Your task to perform on an android device: turn off translation in the chrome app Image 0: 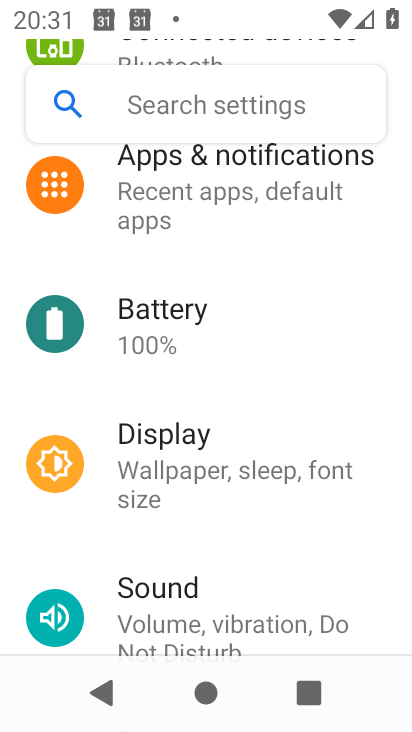
Step 0: press home button
Your task to perform on an android device: turn off translation in the chrome app Image 1: 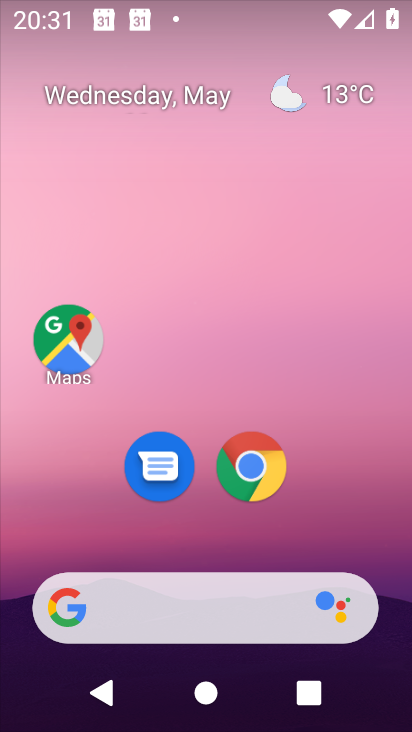
Step 1: click (253, 462)
Your task to perform on an android device: turn off translation in the chrome app Image 2: 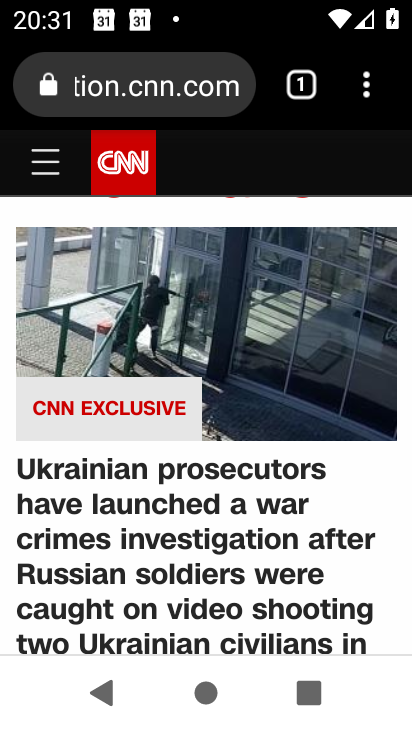
Step 2: click (371, 91)
Your task to perform on an android device: turn off translation in the chrome app Image 3: 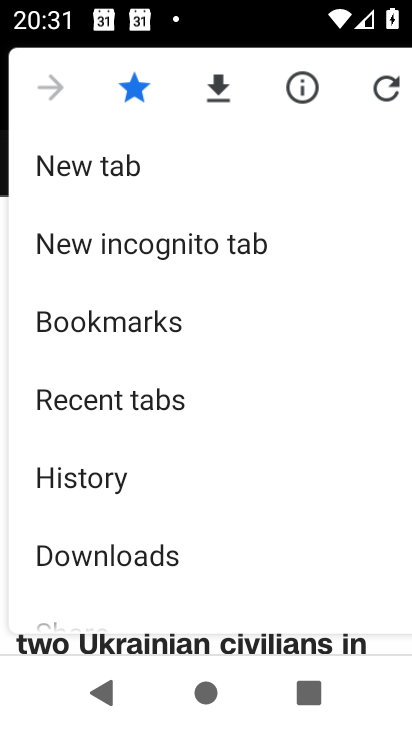
Step 3: drag from (234, 442) to (268, 112)
Your task to perform on an android device: turn off translation in the chrome app Image 4: 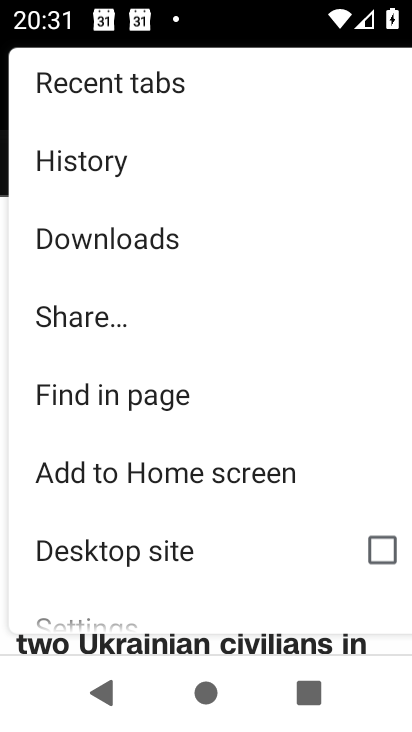
Step 4: drag from (208, 576) to (230, 133)
Your task to perform on an android device: turn off translation in the chrome app Image 5: 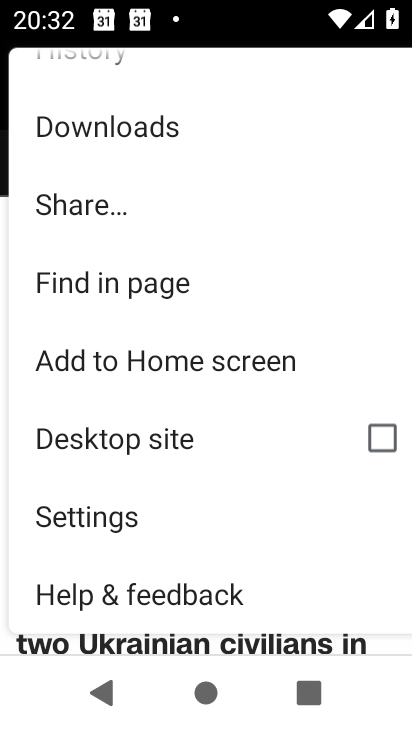
Step 5: click (145, 518)
Your task to perform on an android device: turn off translation in the chrome app Image 6: 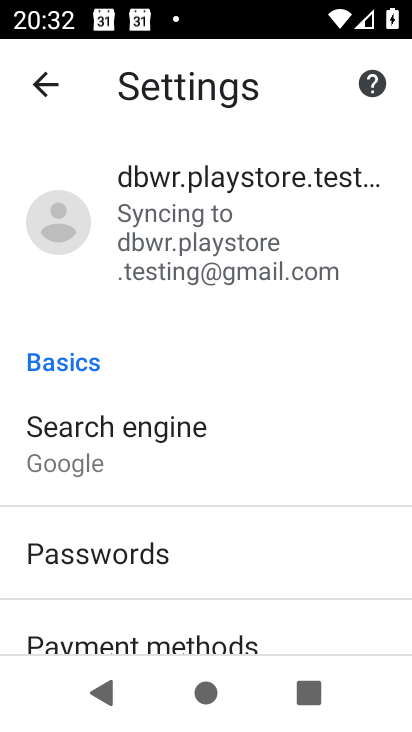
Step 6: drag from (227, 610) to (243, 448)
Your task to perform on an android device: turn off translation in the chrome app Image 7: 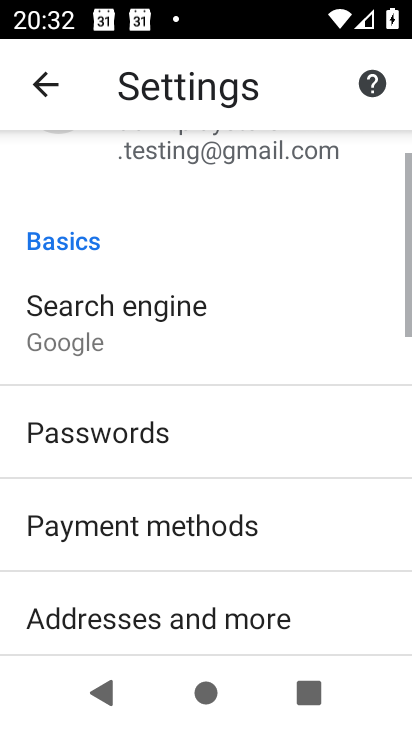
Step 7: drag from (243, 286) to (243, 143)
Your task to perform on an android device: turn off translation in the chrome app Image 8: 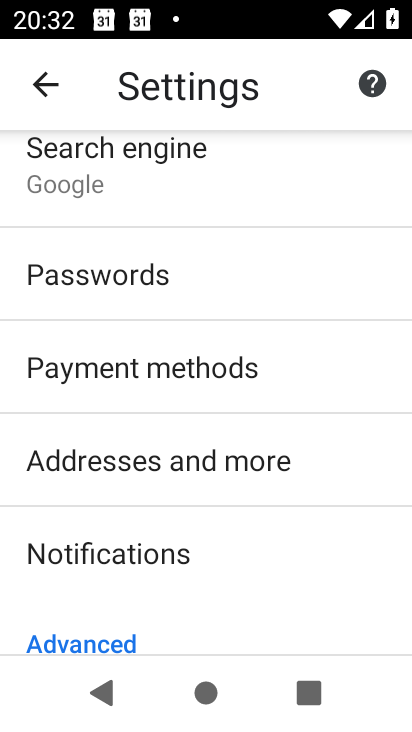
Step 8: drag from (210, 629) to (216, 119)
Your task to perform on an android device: turn off translation in the chrome app Image 9: 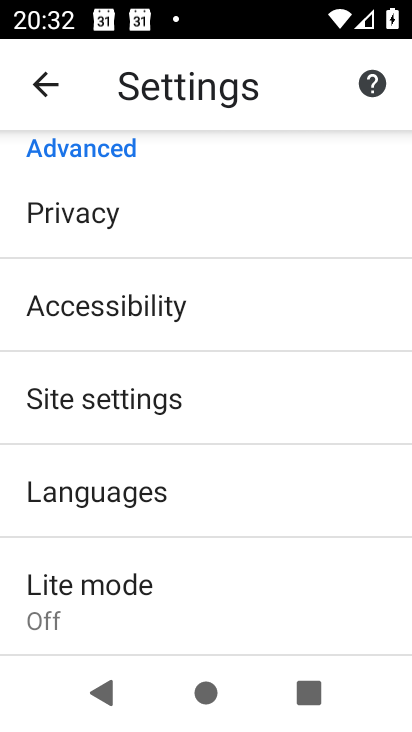
Step 9: click (185, 484)
Your task to perform on an android device: turn off translation in the chrome app Image 10: 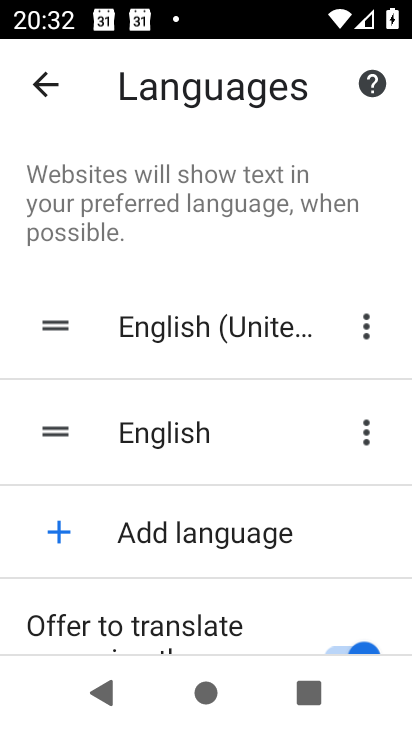
Step 10: drag from (254, 603) to (254, 526)
Your task to perform on an android device: turn off translation in the chrome app Image 11: 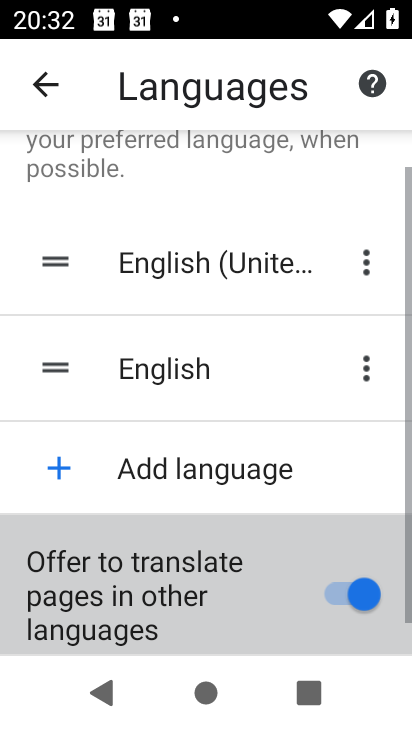
Step 11: click (254, 283)
Your task to perform on an android device: turn off translation in the chrome app Image 12: 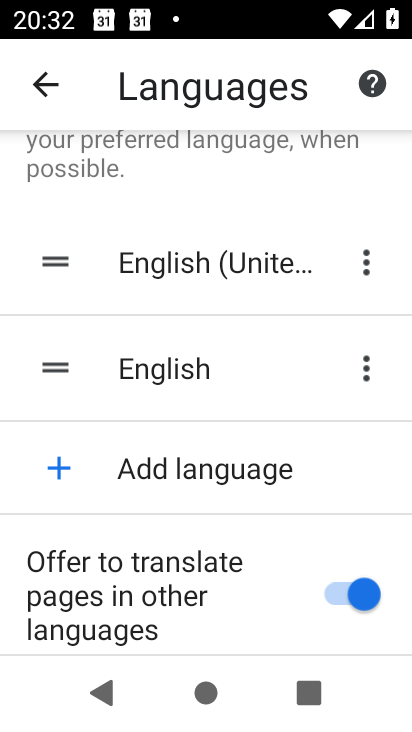
Step 12: click (338, 593)
Your task to perform on an android device: turn off translation in the chrome app Image 13: 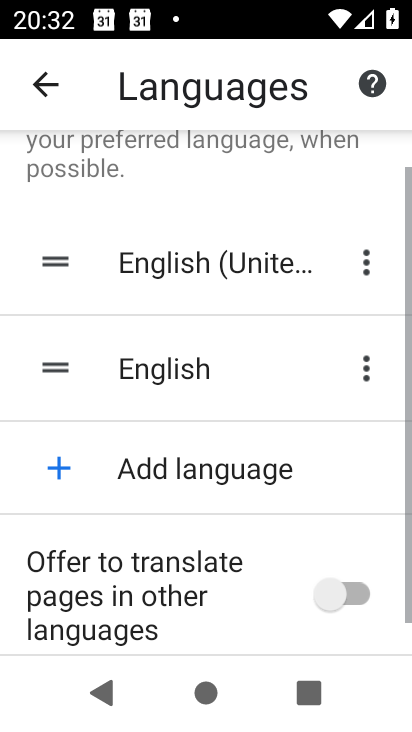
Step 13: task complete